Your task to perform on an android device: Show me the alarms in the clock app Image 0: 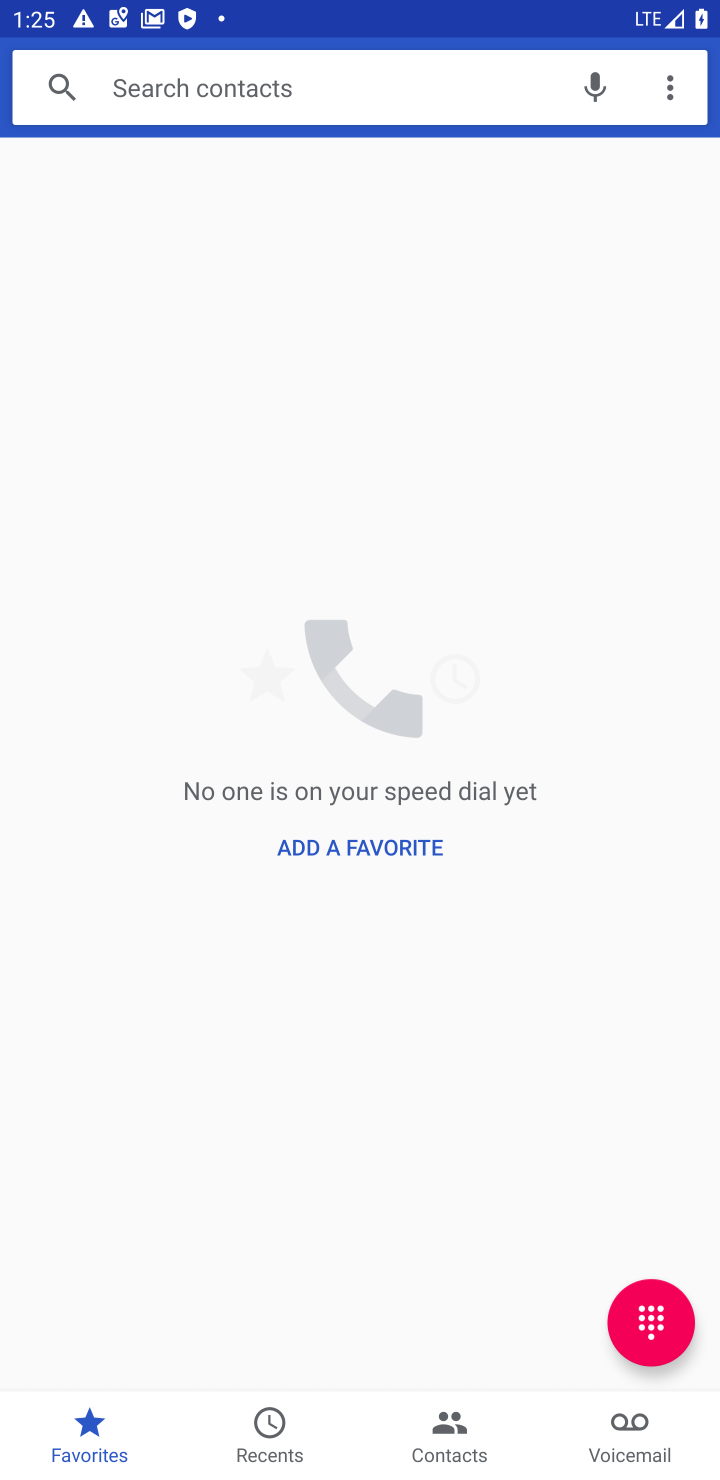
Step 0: press home button
Your task to perform on an android device: Show me the alarms in the clock app Image 1: 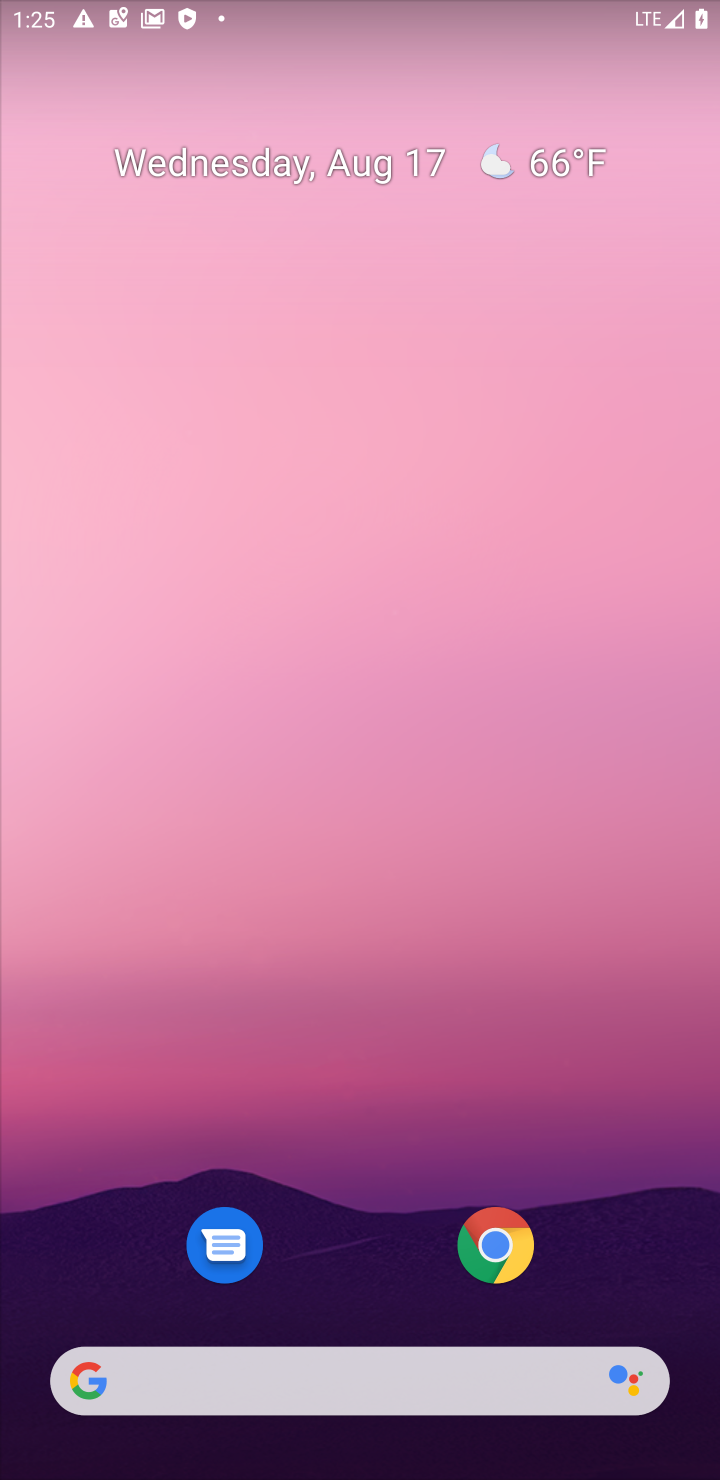
Step 1: drag from (385, 1294) to (334, 63)
Your task to perform on an android device: Show me the alarms in the clock app Image 2: 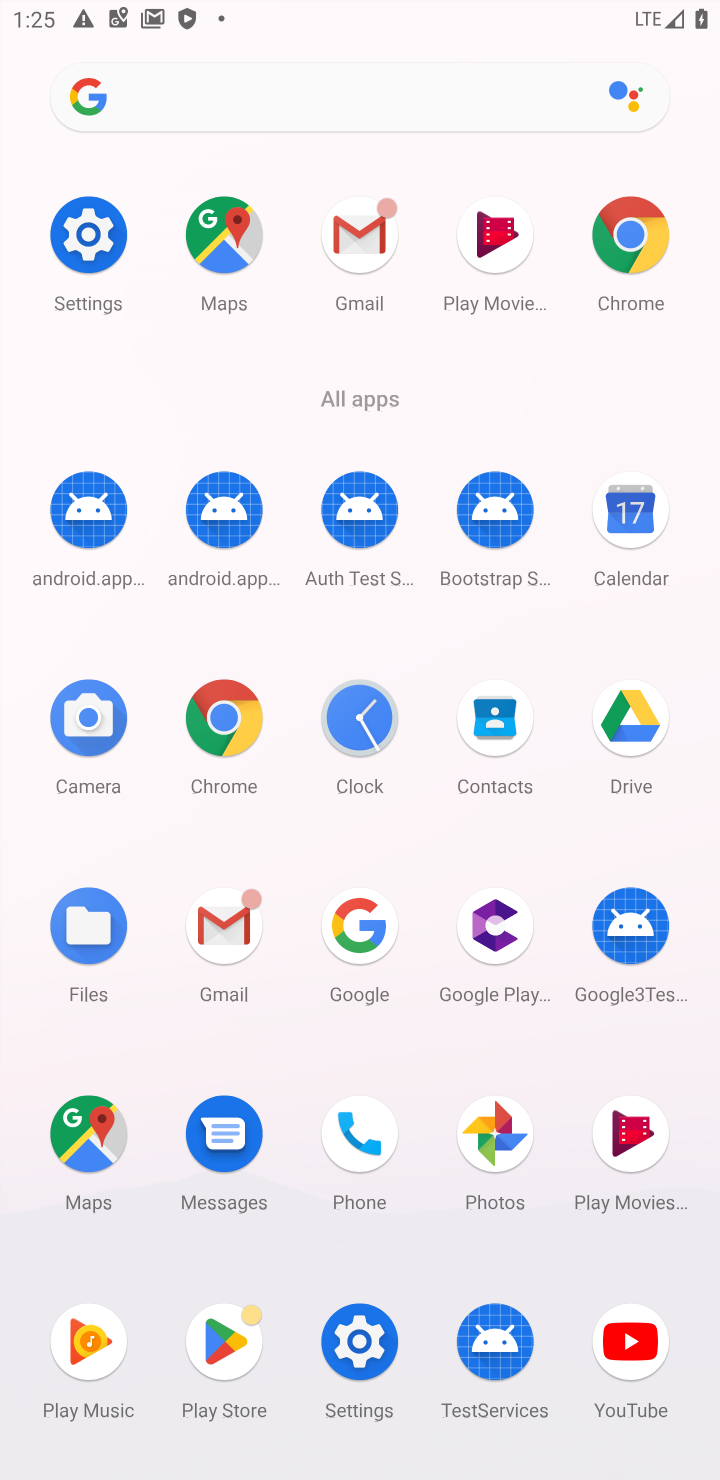
Step 2: click (360, 725)
Your task to perform on an android device: Show me the alarms in the clock app Image 3: 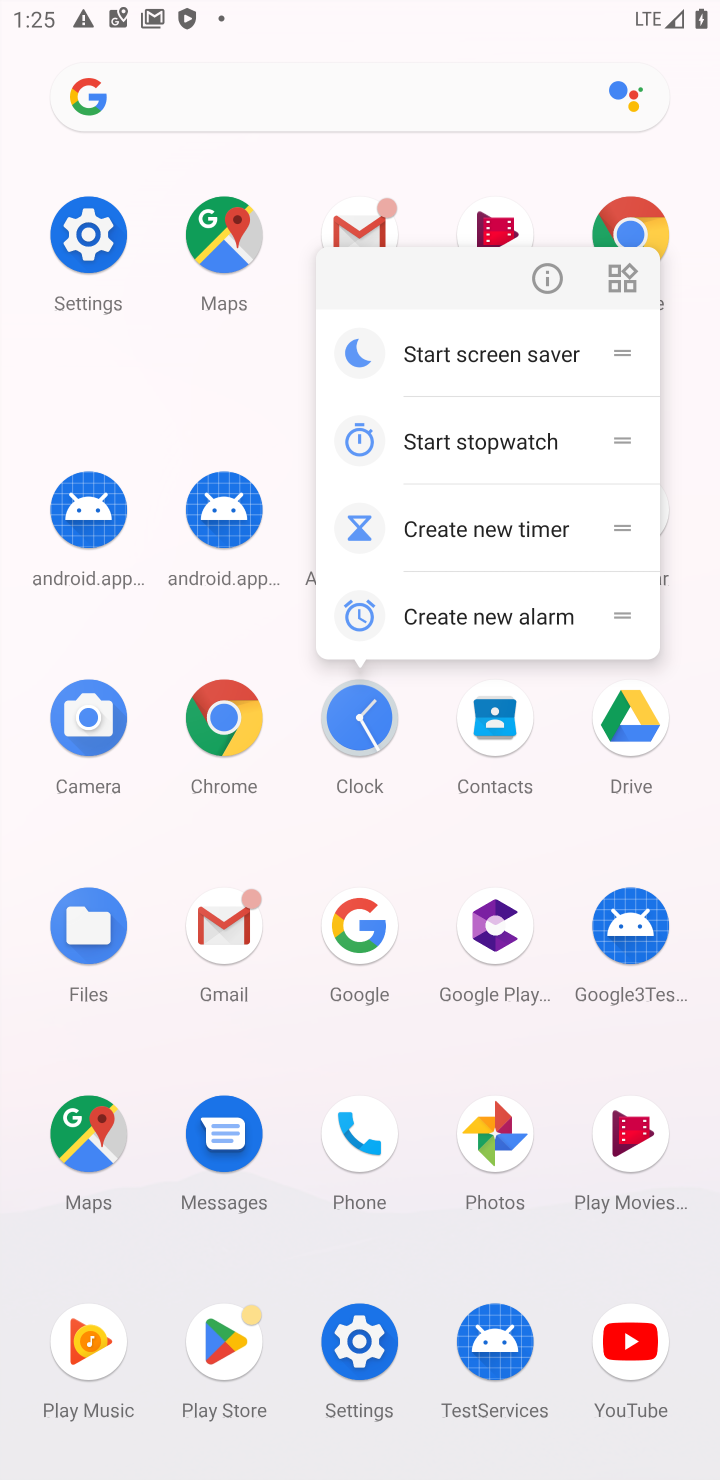
Step 3: click (357, 725)
Your task to perform on an android device: Show me the alarms in the clock app Image 4: 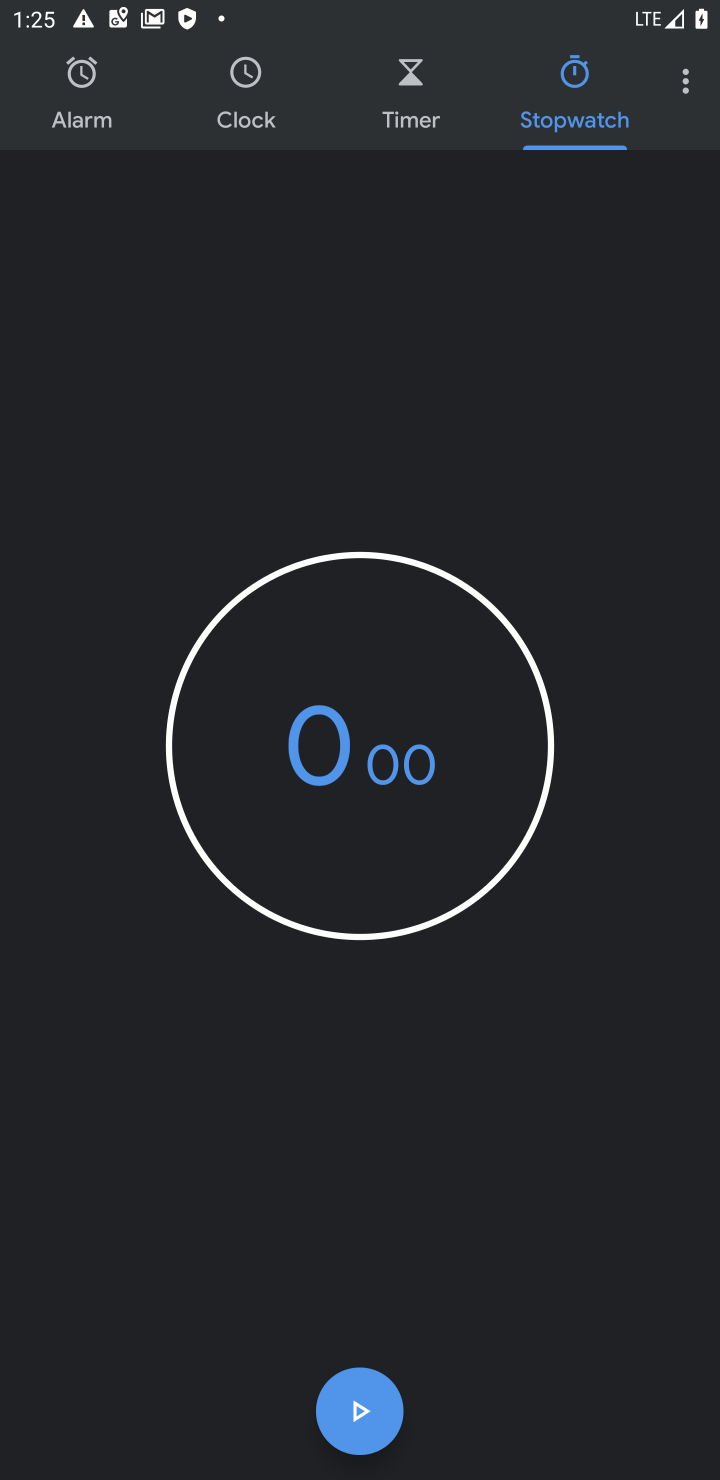
Step 4: click (74, 85)
Your task to perform on an android device: Show me the alarms in the clock app Image 5: 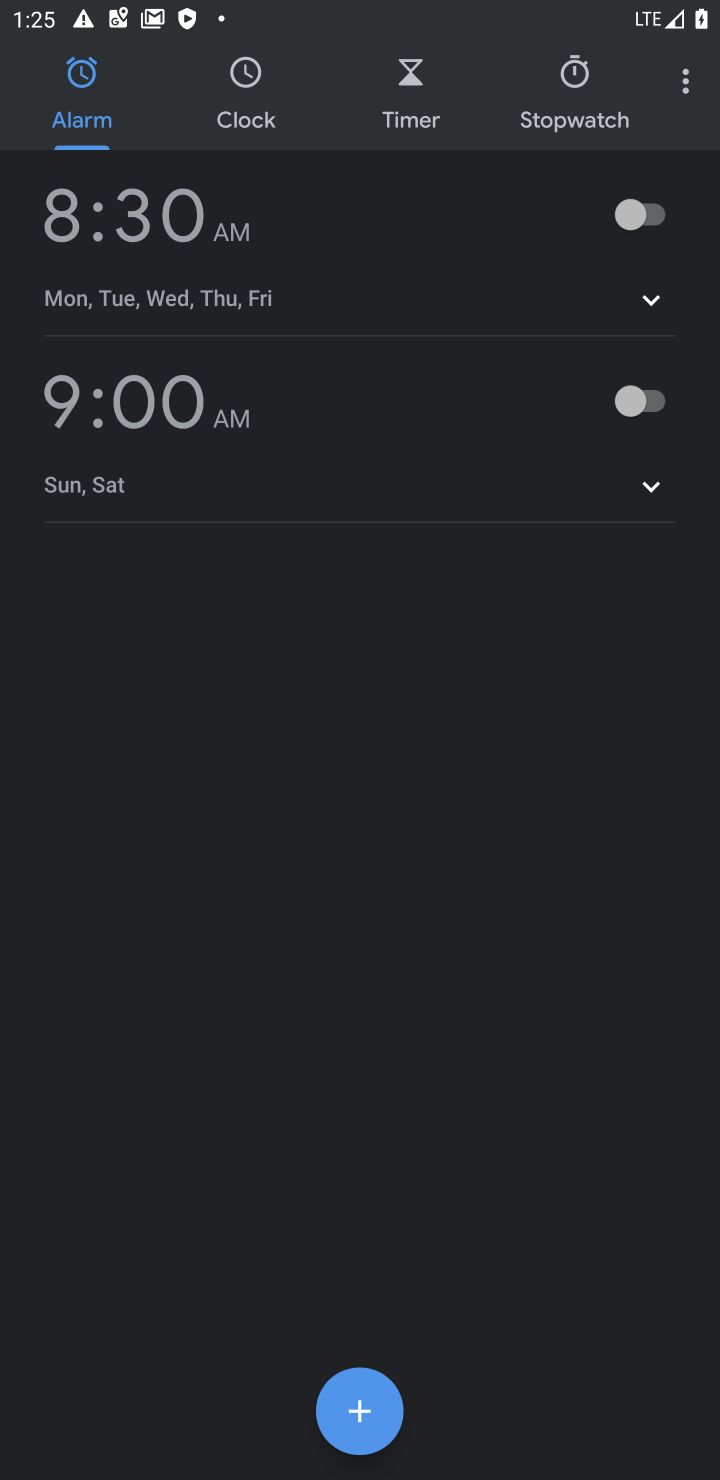
Step 5: task complete